Your task to perform on an android device: Open Google Image 0: 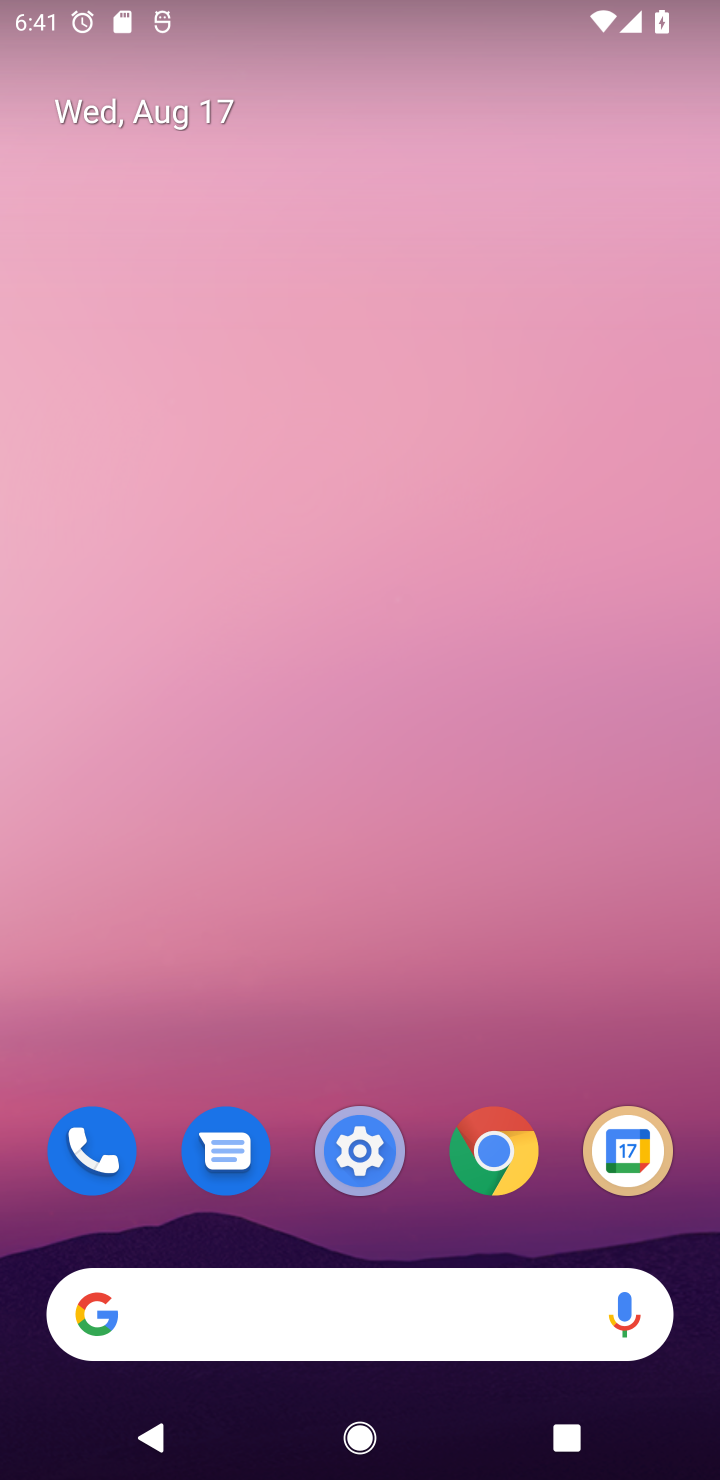
Step 0: click (274, 1320)
Your task to perform on an android device: Open Google Image 1: 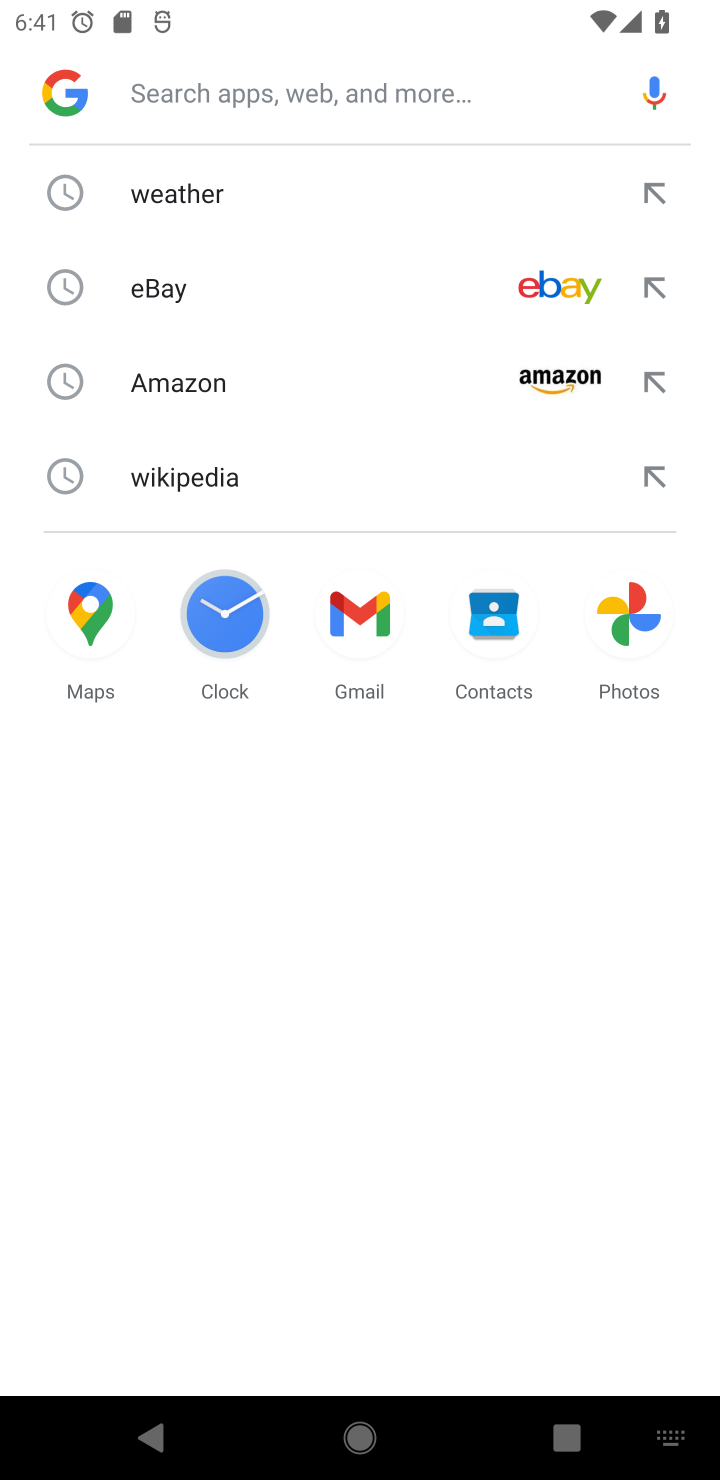
Step 1: type "google.com"
Your task to perform on an android device: Open Google Image 2: 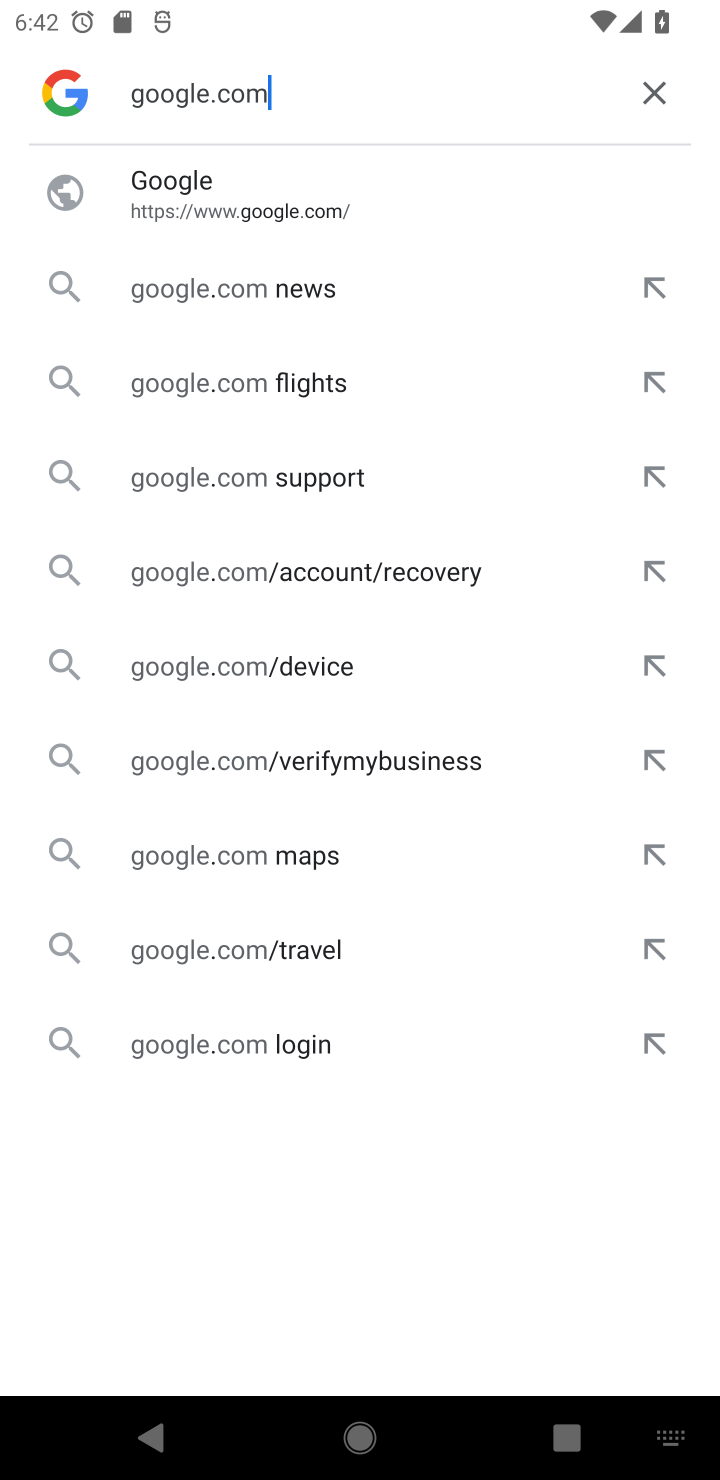
Step 2: click (282, 225)
Your task to perform on an android device: Open Google Image 3: 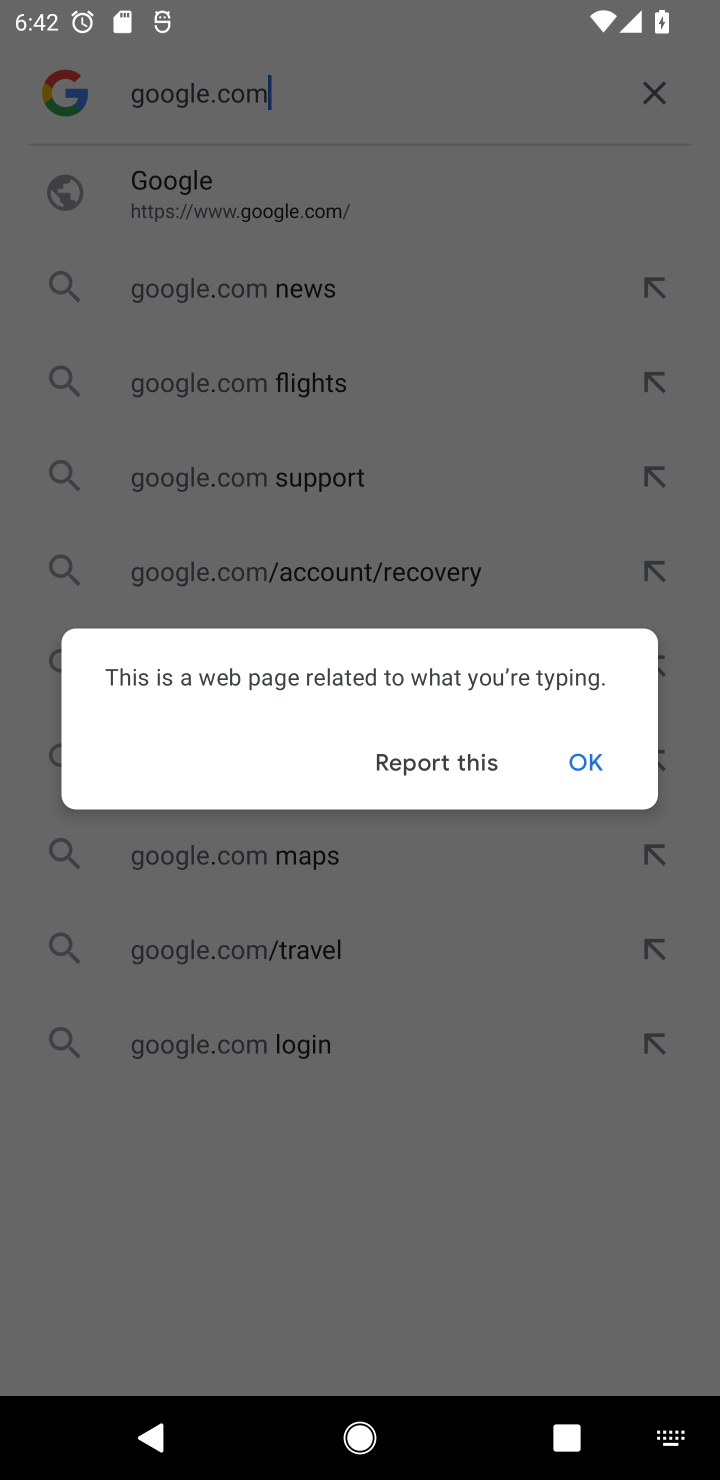
Step 3: task complete